Your task to perform on an android device: set an alarm Image 0: 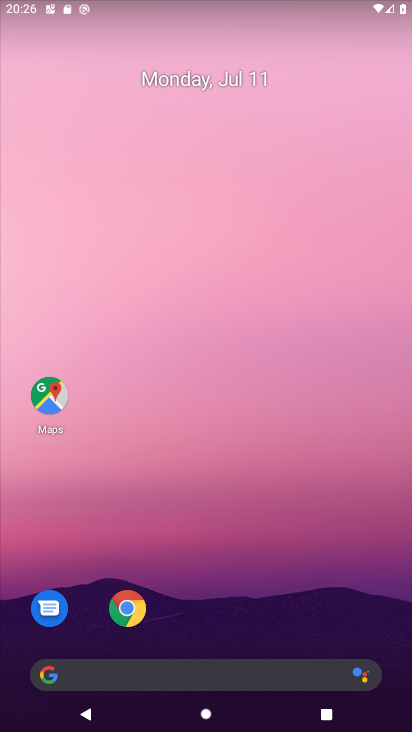
Step 0: drag from (206, 637) to (62, 64)
Your task to perform on an android device: set an alarm Image 1: 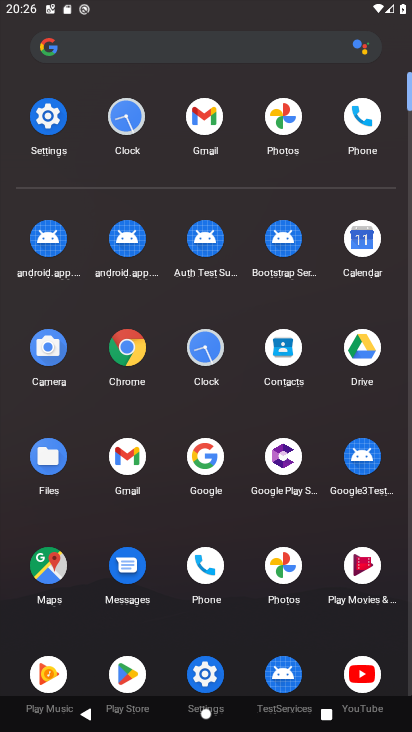
Step 1: click (144, 134)
Your task to perform on an android device: set an alarm Image 2: 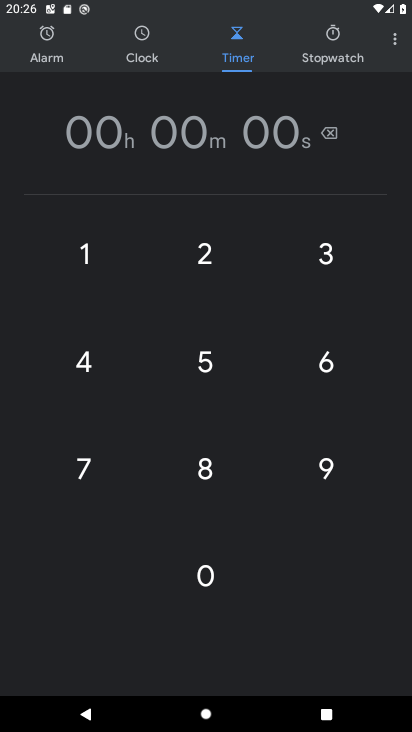
Step 2: click (44, 65)
Your task to perform on an android device: set an alarm Image 3: 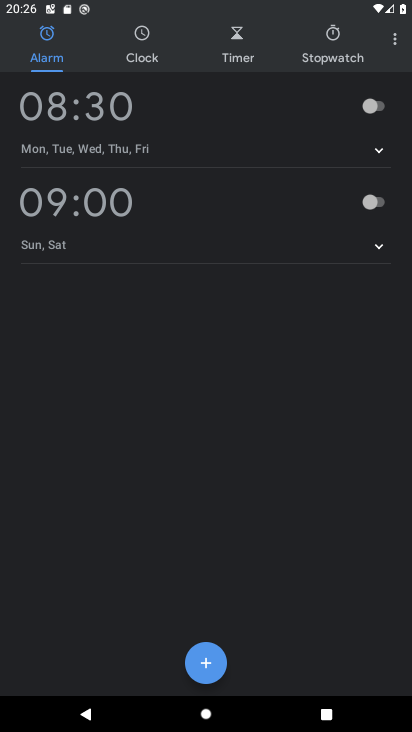
Step 3: click (385, 105)
Your task to perform on an android device: set an alarm Image 4: 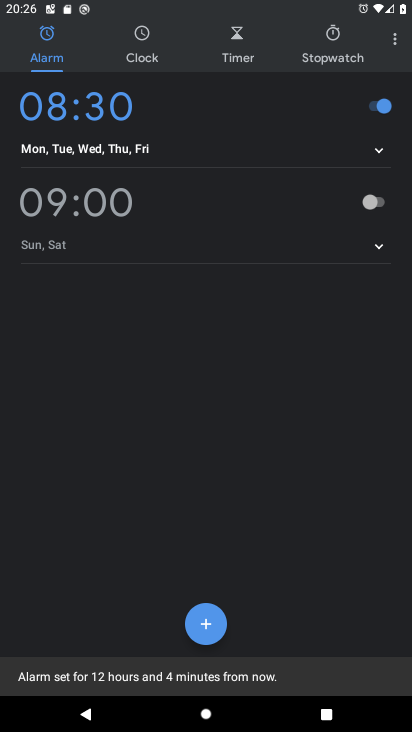
Step 4: task complete